Your task to perform on an android device: refresh tabs in the chrome app Image 0: 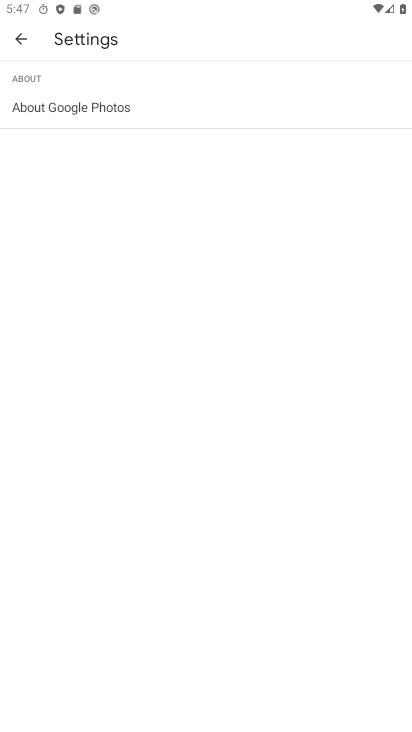
Step 0: press home button
Your task to perform on an android device: refresh tabs in the chrome app Image 1: 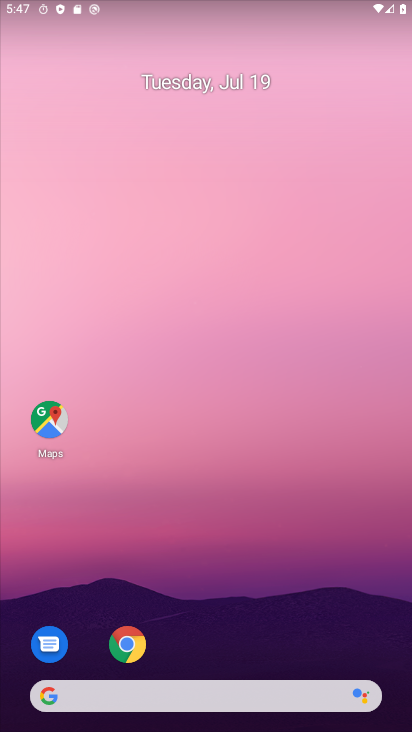
Step 1: click (134, 638)
Your task to perform on an android device: refresh tabs in the chrome app Image 2: 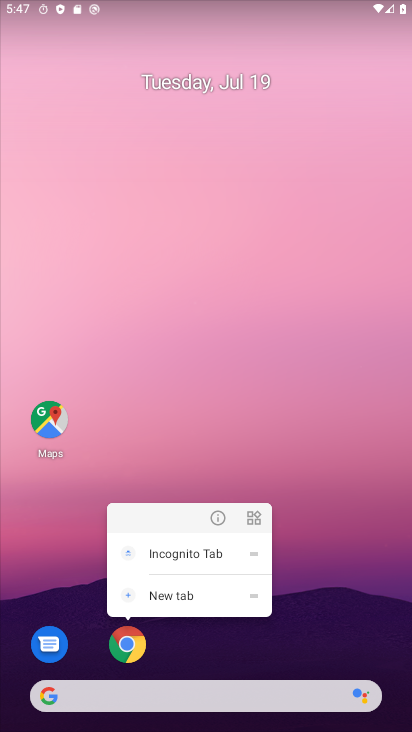
Step 2: click (120, 648)
Your task to perform on an android device: refresh tabs in the chrome app Image 3: 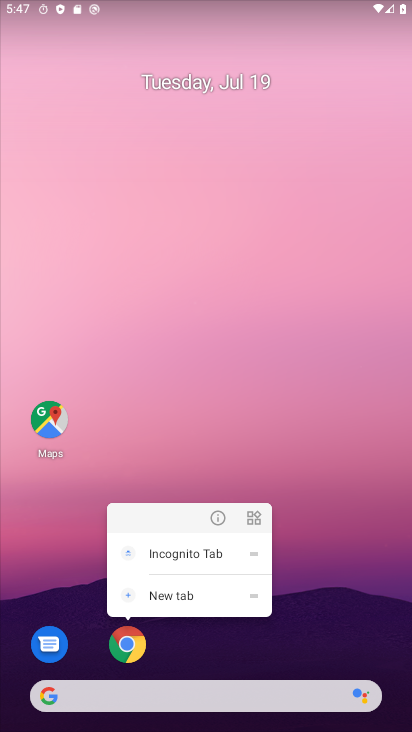
Step 3: click (120, 648)
Your task to perform on an android device: refresh tabs in the chrome app Image 4: 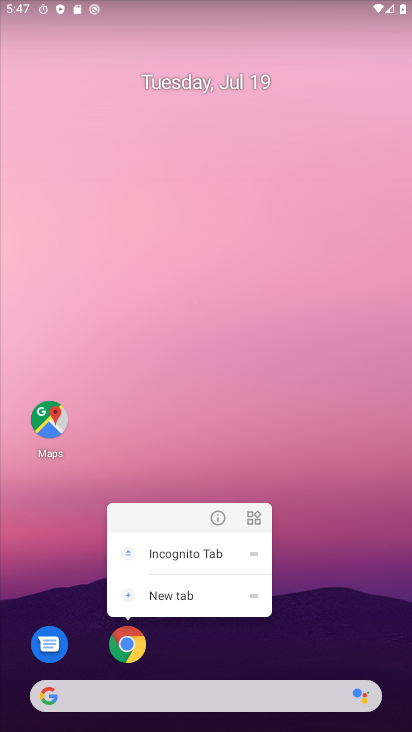
Step 4: click (130, 647)
Your task to perform on an android device: refresh tabs in the chrome app Image 5: 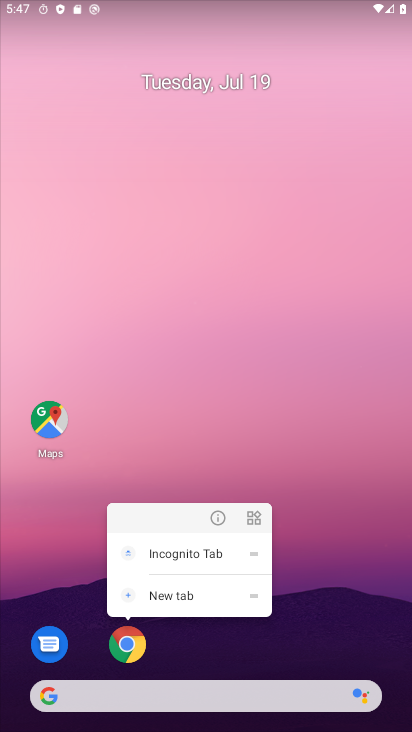
Step 5: click (131, 646)
Your task to perform on an android device: refresh tabs in the chrome app Image 6: 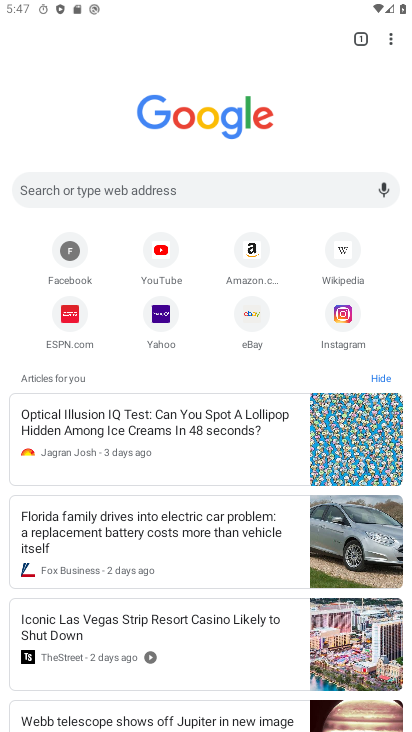
Step 6: click (390, 33)
Your task to perform on an android device: refresh tabs in the chrome app Image 7: 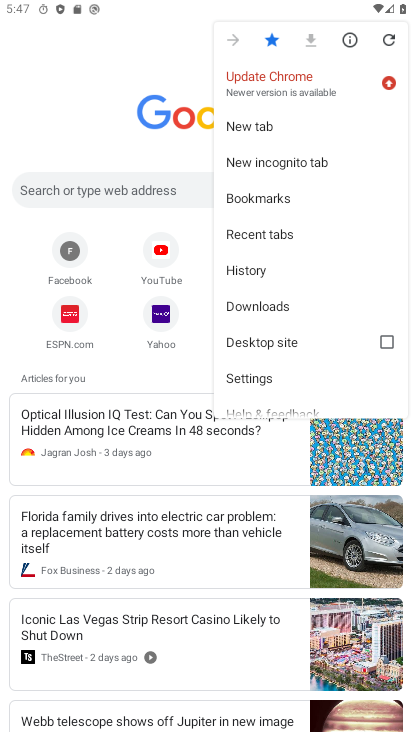
Step 7: click (390, 42)
Your task to perform on an android device: refresh tabs in the chrome app Image 8: 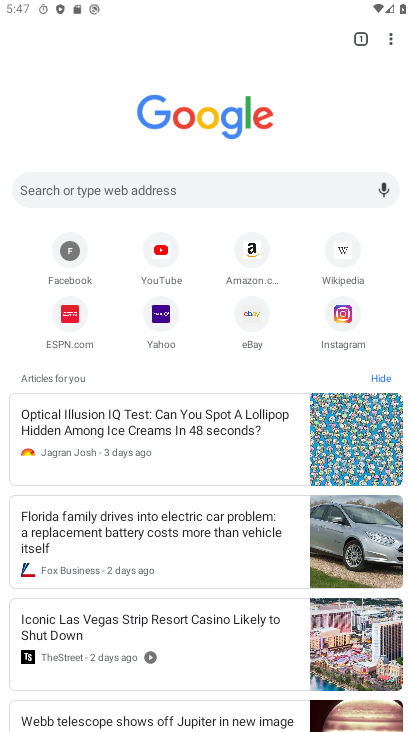
Step 8: task complete